Your task to perform on an android device: open device folders in google photos Image 0: 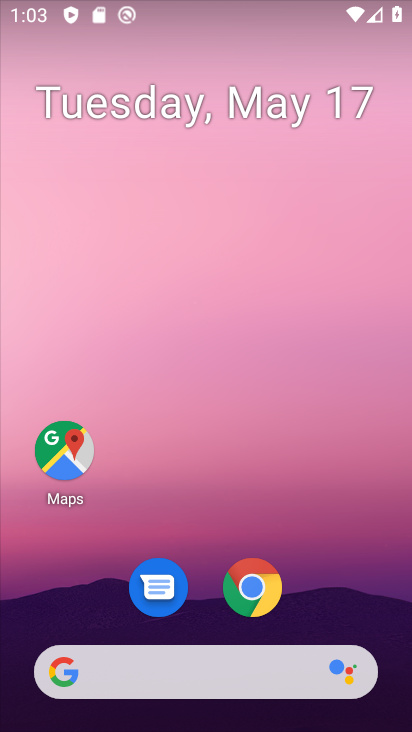
Step 0: drag from (349, 597) to (337, 217)
Your task to perform on an android device: open device folders in google photos Image 1: 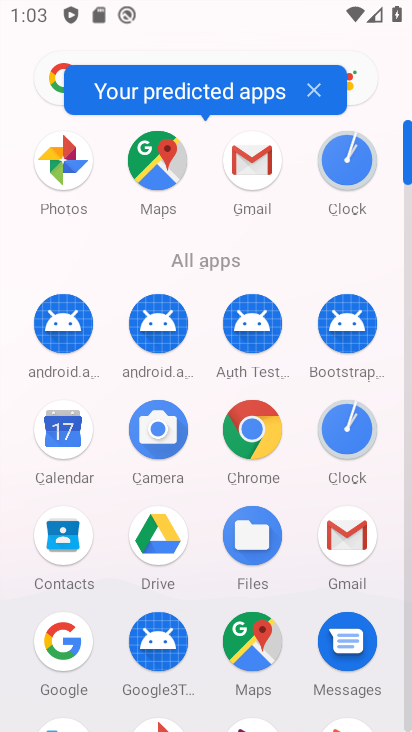
Step 1: drag from (305, 578) to (310, 245)
Your task to perform on an android device: open device folders in google photos Image 2: 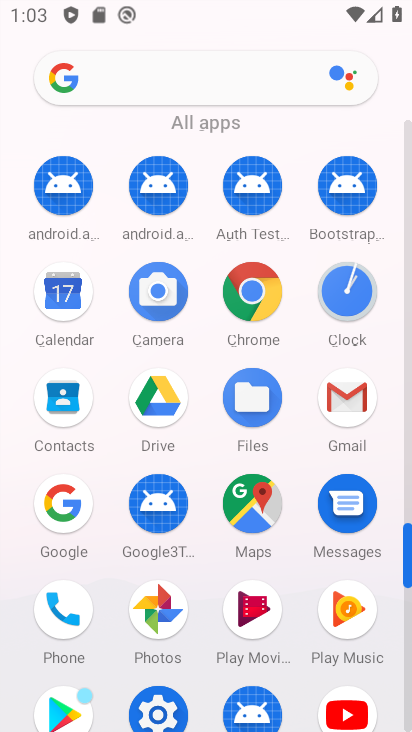
Step 2: click (161, 632)
Your task to perform on an android device: open device folders in google photos Image 3: 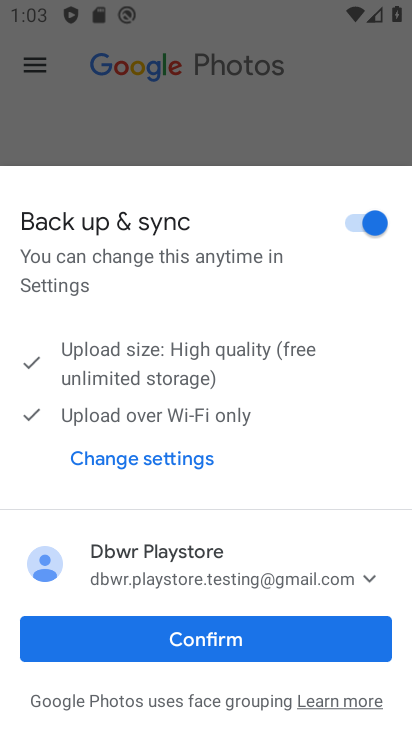
Step 3: click (178, 645)
Your task to perform on an android device: open device folders in google photos Image 4: 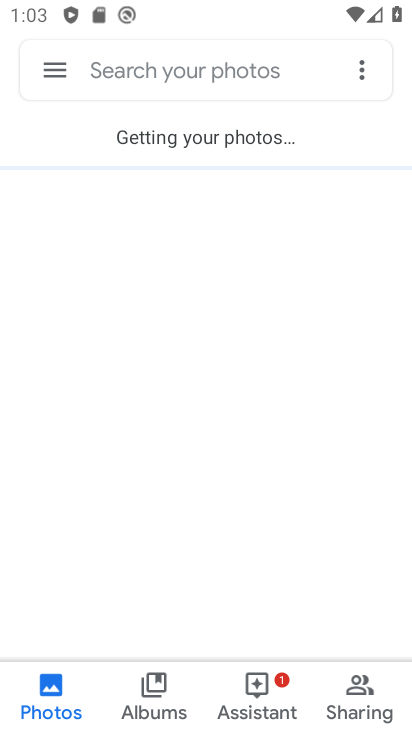
Step 4: click (209, 63)
Your task to perform on an android device: open device folders in google photos Image 5: 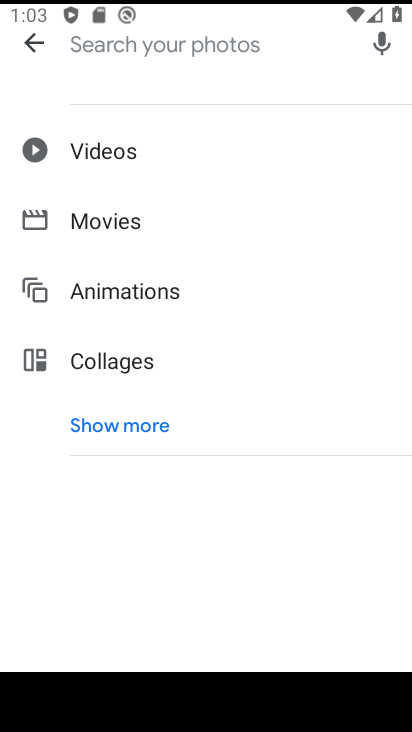
Step 5: press home button
Your task to perform on an android device: open device folders in google photos Image 6: 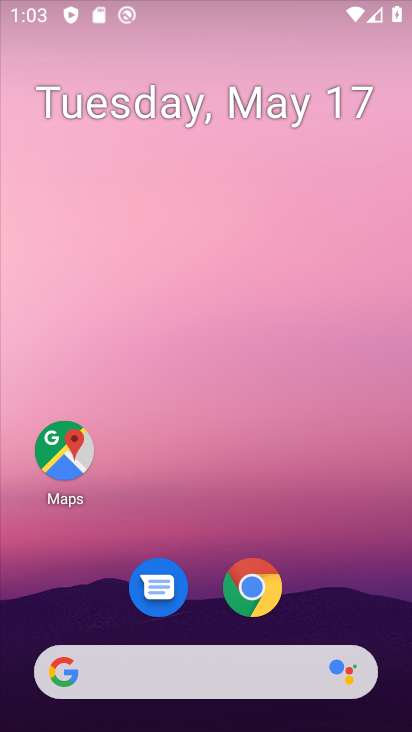
Step 6: drag from (327, 389) to (314, 165)
Your task to perform on an android device: open device folders in google photos Image 7: 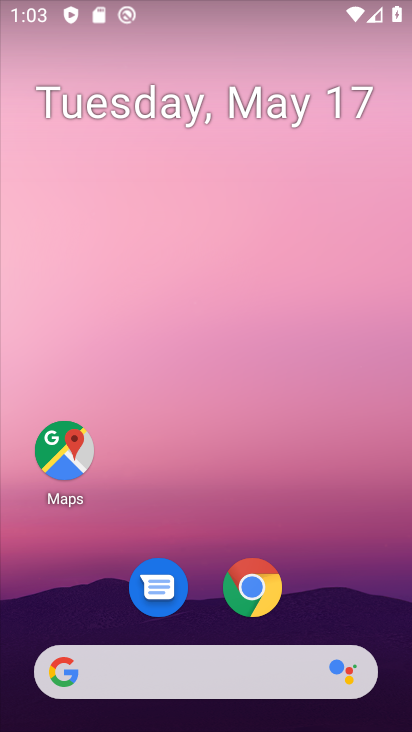
Step 7: drag from (351, 590) to (351, 112)
Your task to perform on an android device: open device folders in google photos Image 8: 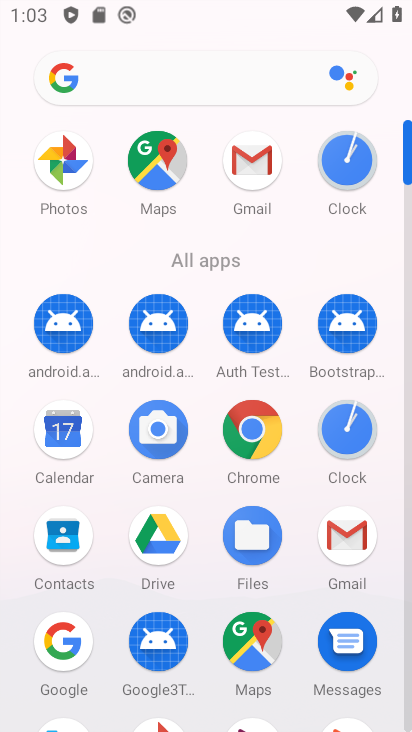
Step 8: drag from (192, 724) to (267, 360)
Your task to perform on an android device: open device folders in google photos Image 9: 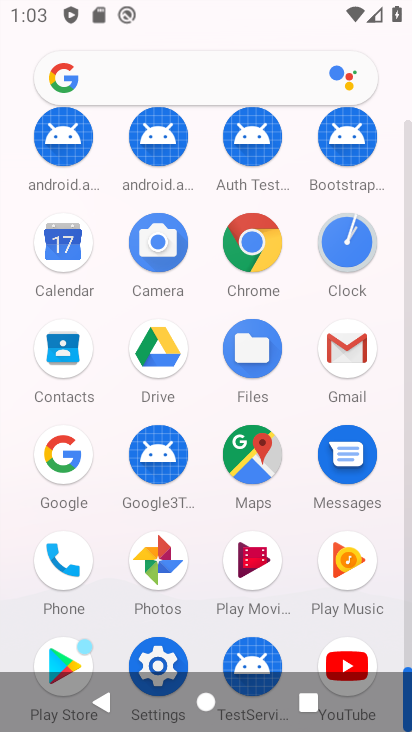
Step 9: click (164, 571)
Your task to perform on an android device: open device folders in google photos Image 10: 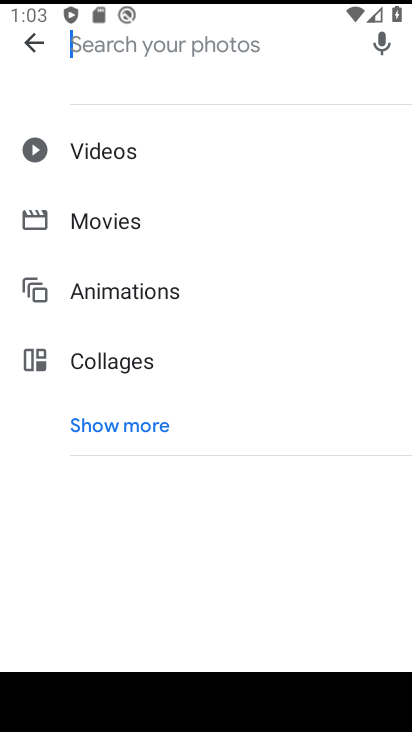
Step 10: click (40, 41)
Your task to perform on an android device: open device folders in google photos Image 11: 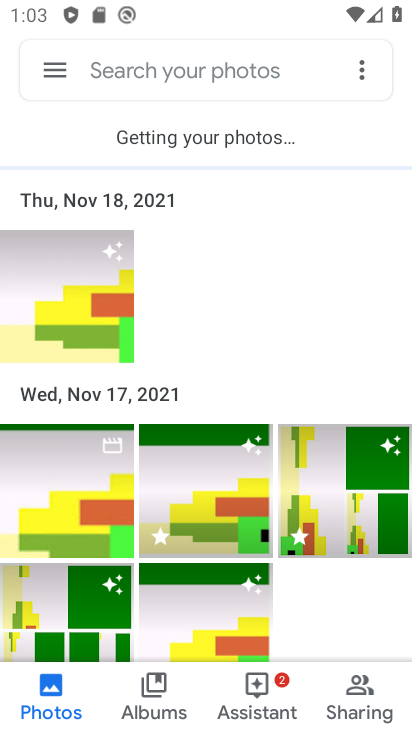
Step 11: click (52, 72)
Your task to perform on an android device: open device folders in google photos Image 12: 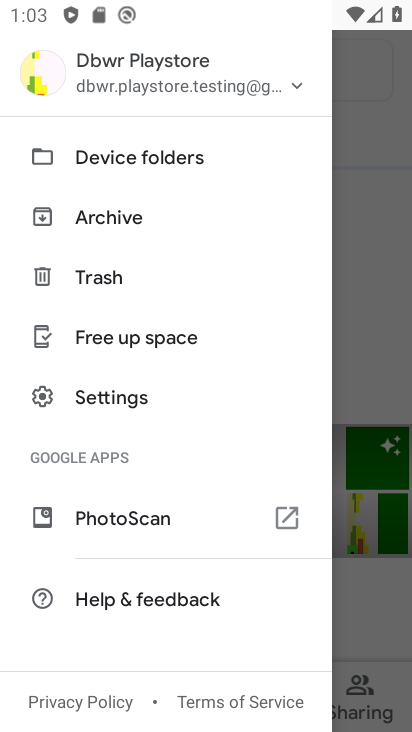
Step 12: click (101, 170)
Your task to perform on an android device: open device folders in google photos Image 13: 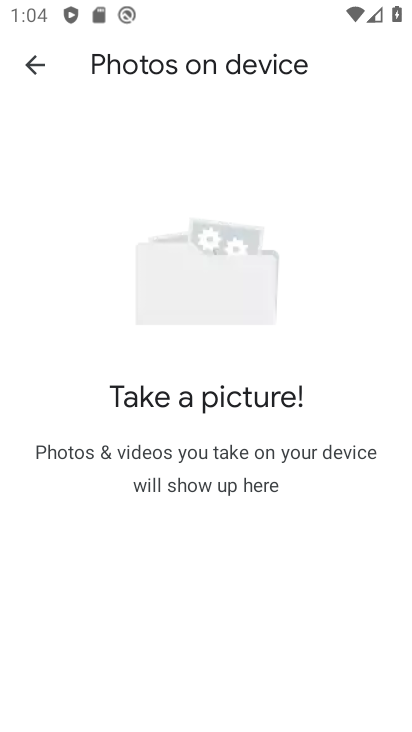
Step 13: task complete